Your task to perform on an android device: add a contact Image 0: 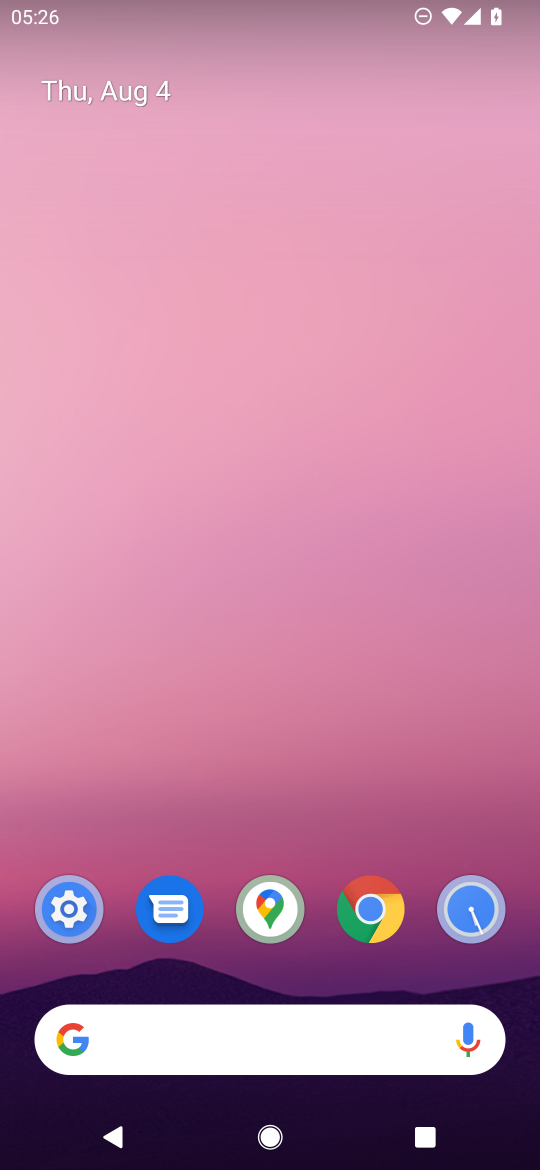
Step 0: drag from (276, 787) to (276, 0)
Your task to perform on an android device: add a contact Image 1: 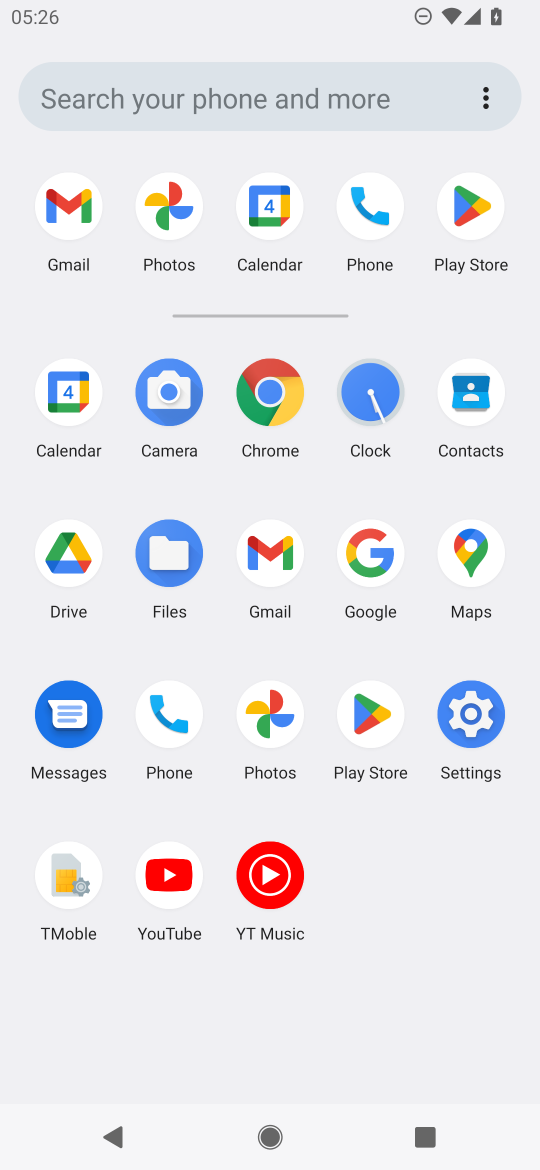
Step 1: click (470, 402)
Your task to perform on an android device: add a contact Image 2: 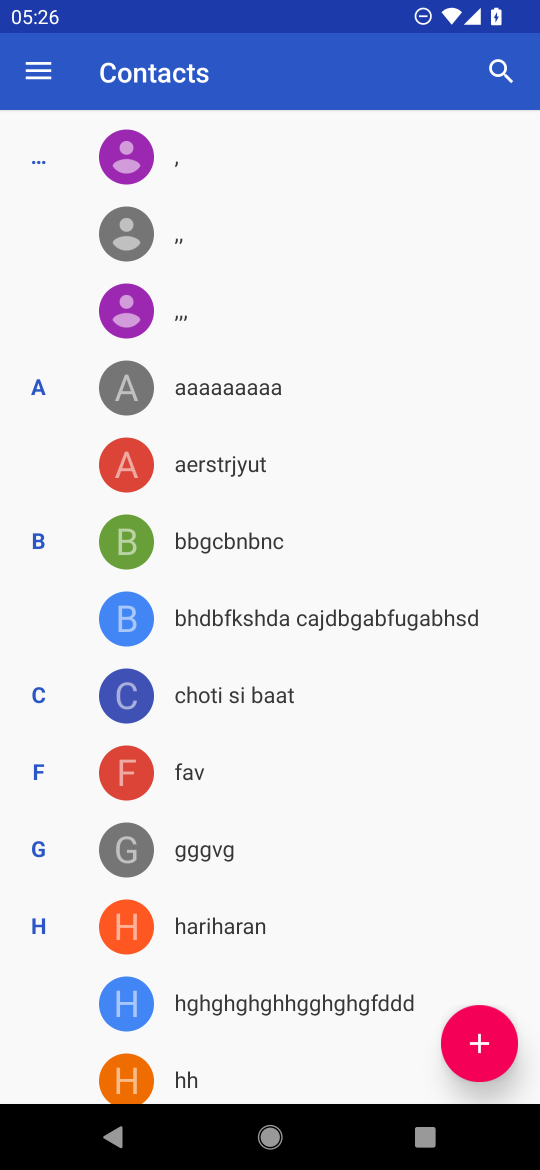
Step 2: click (501, 1039)
Your task to perform on an android device: add a contact Image 3: 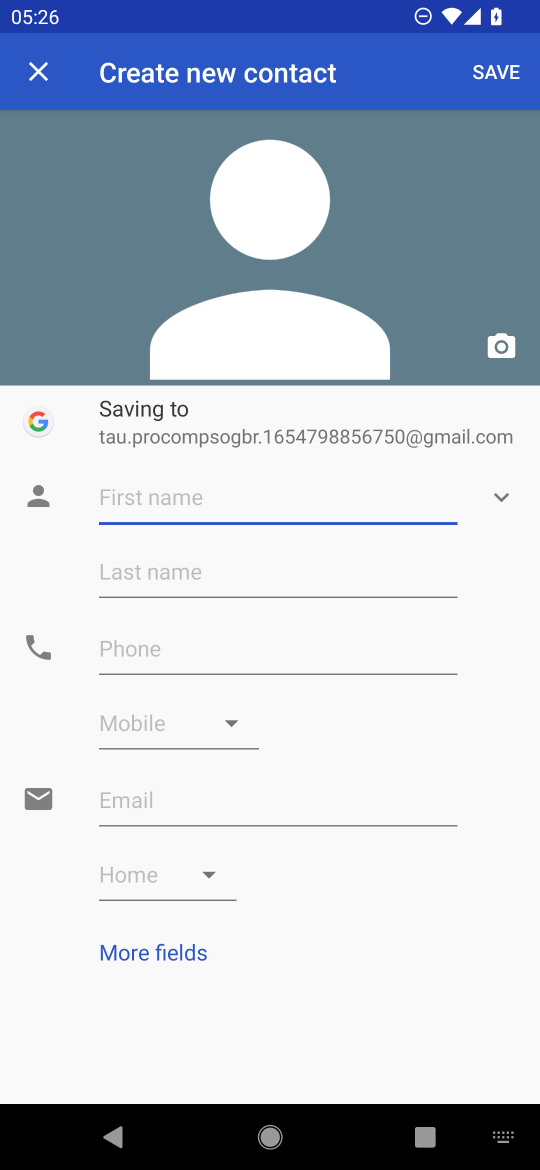
Step 3: type "ggdddgh"
Your task to perform on an android device: add a contact Image 4: 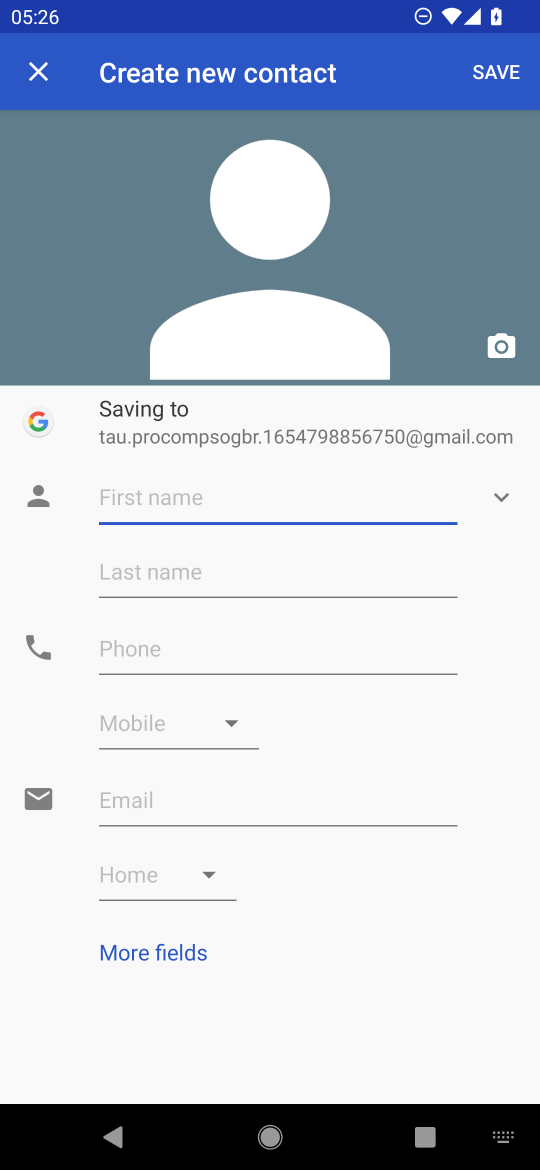
Step 4: click (222, 496)
Your task to perform on an android device: add a contact Image 5: 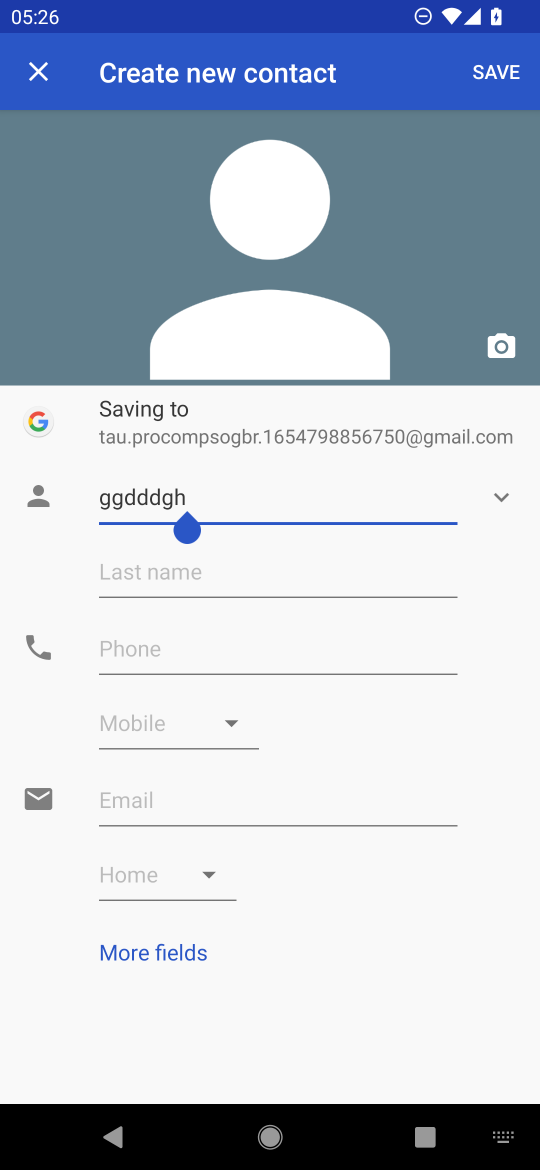
Step 5: click (128, 662)
Your task to perform on an android device: add a contact Image 6: 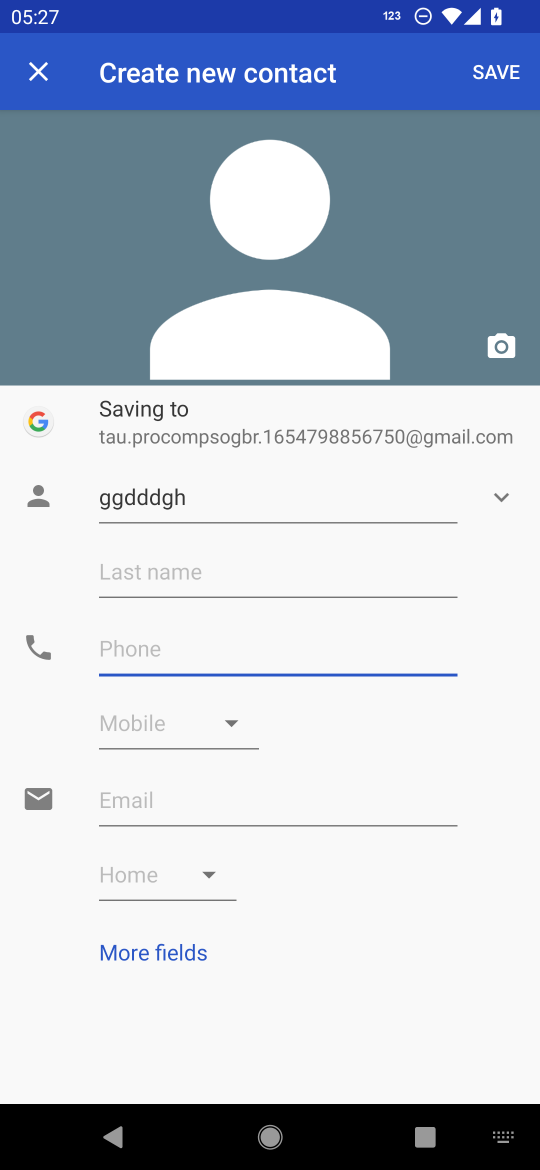
Step 6: type "45544444"
Your task to perform on an android device: add a contact Image 7: 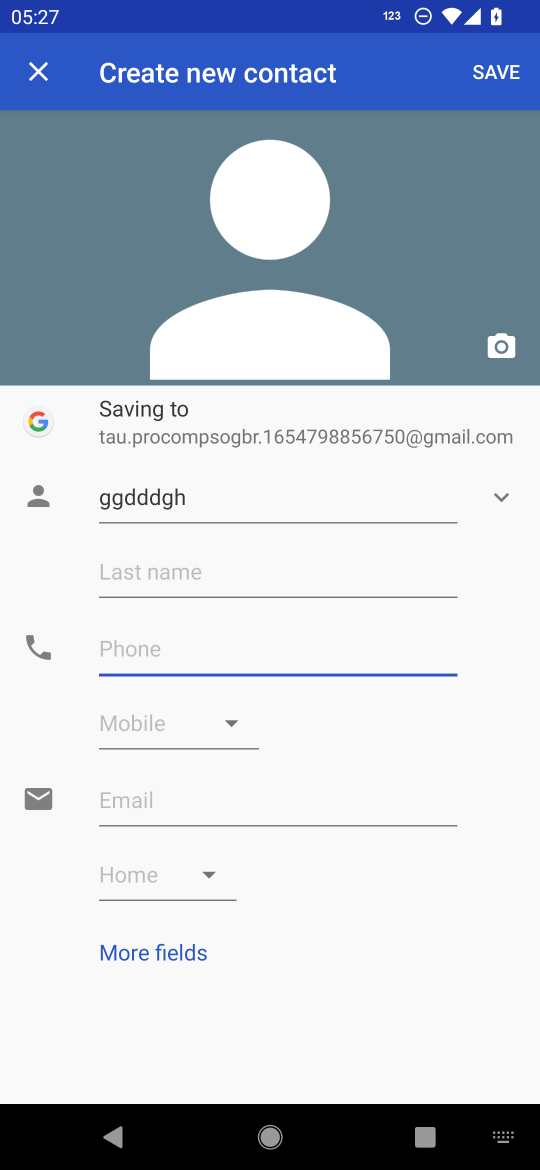
Step 7: click (226, 641)
Your task to perform on an android device: add a contact Image 8: 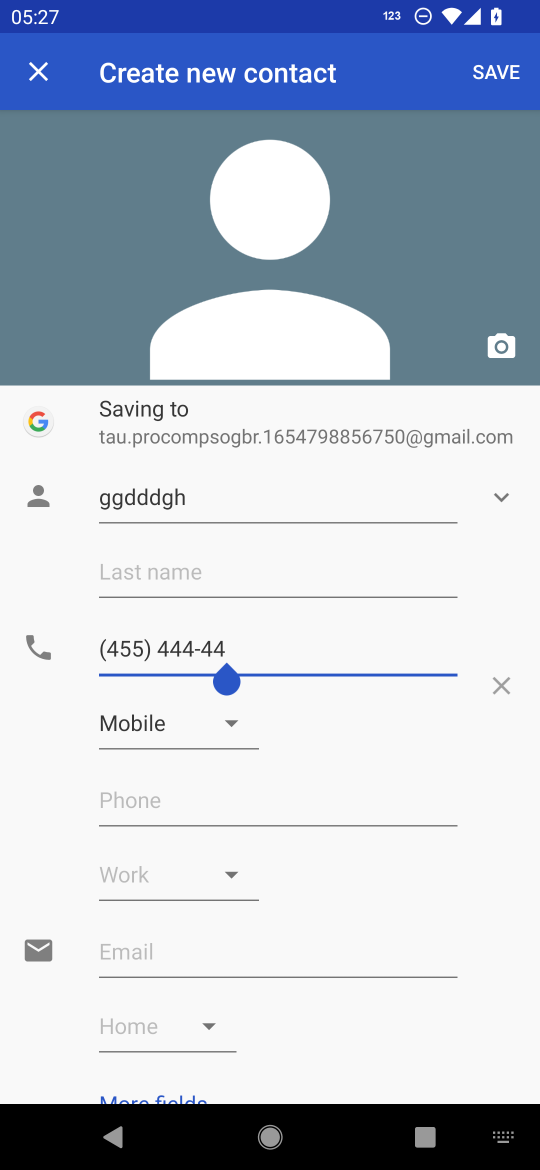
Step 8: click (483, 83)
Your task to perform on an android device: add a contact Image 9: 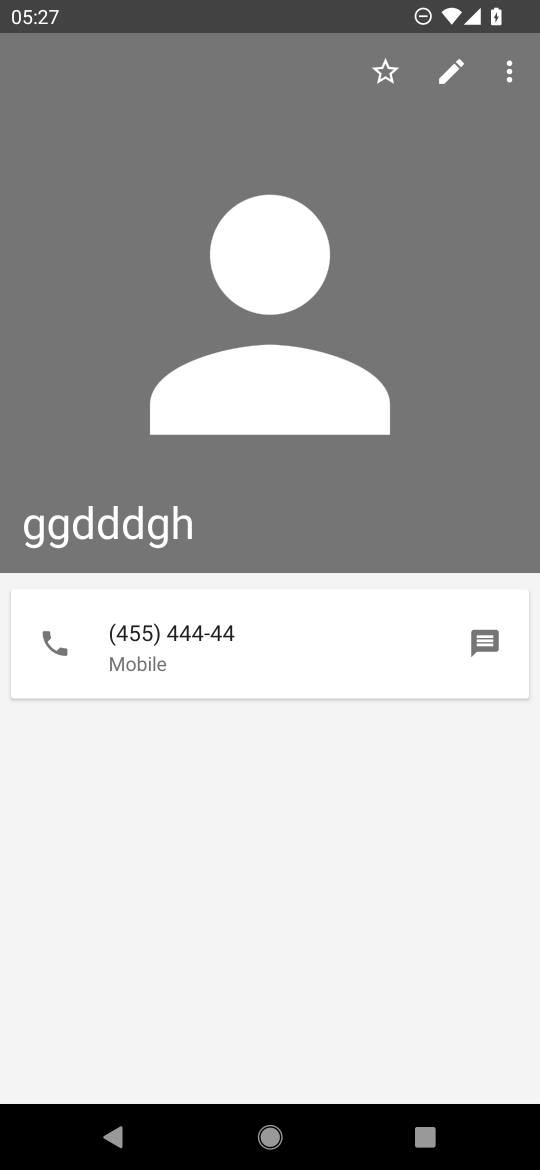
Step 9: task complete